Your task to perform on an android device: Open wifi settings Image 0: 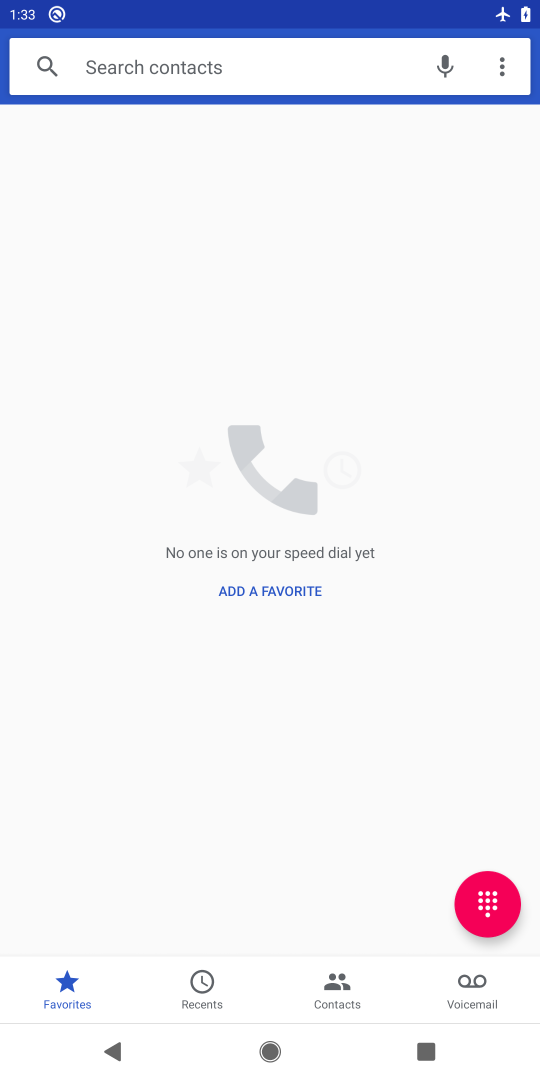
Step 0: press home button
Your task to perform on an android device: Open wifi settings Image 1: 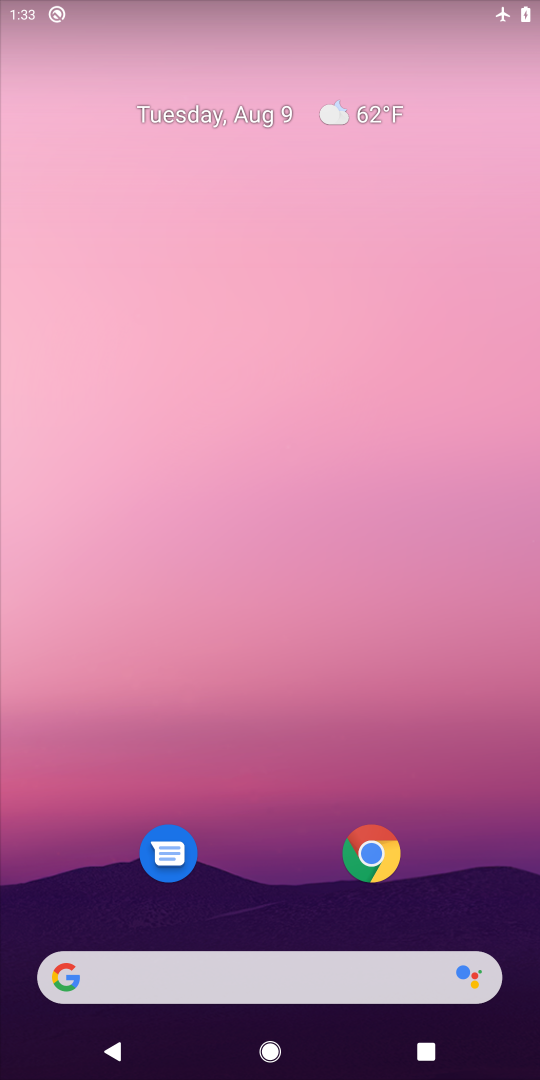
Step 1: drag from (249, 829) to (250, 48)
Your task to perform on an android device: Open wifi settings Image 2: 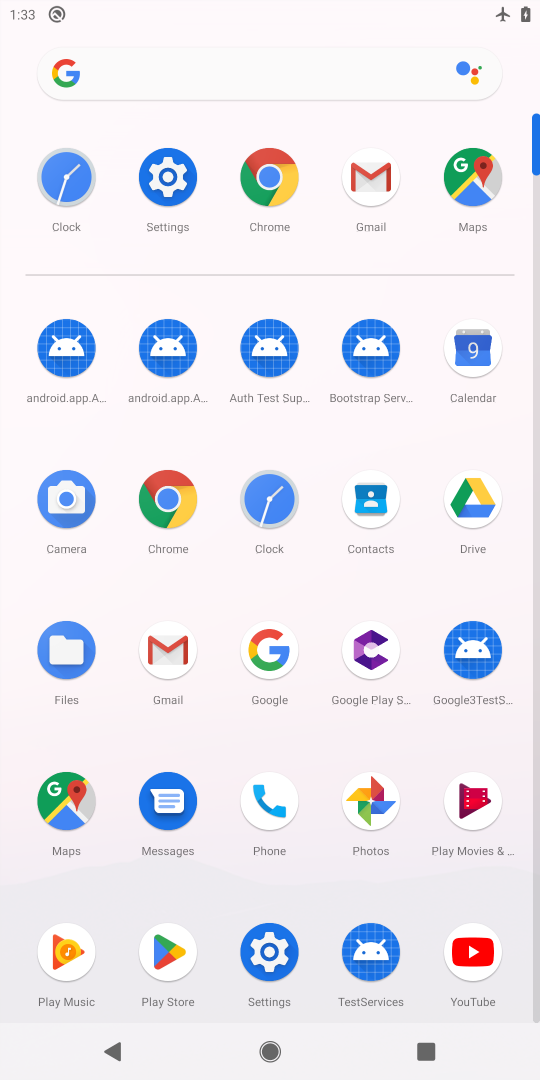
Step 2: click (146, 171)
Your task to perform on an android device: Open wifi settings Image 3: 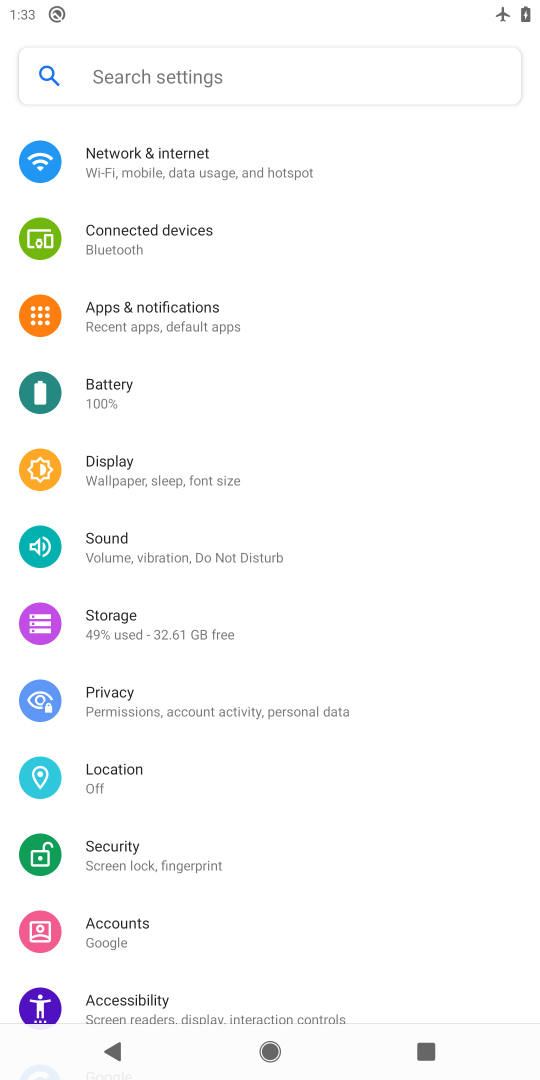
Step 3: click (142, 175)
Your task to perform on an android device: Open wifi settings Image 4: 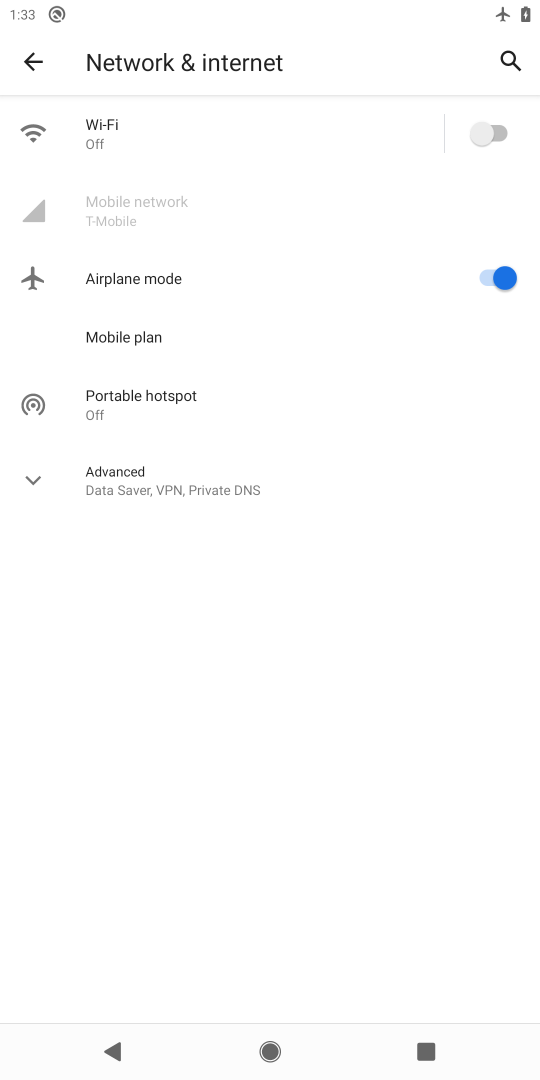
Step 4: task complete